Your task to perform on an android device: set default search engine in the chrome app Image 0: 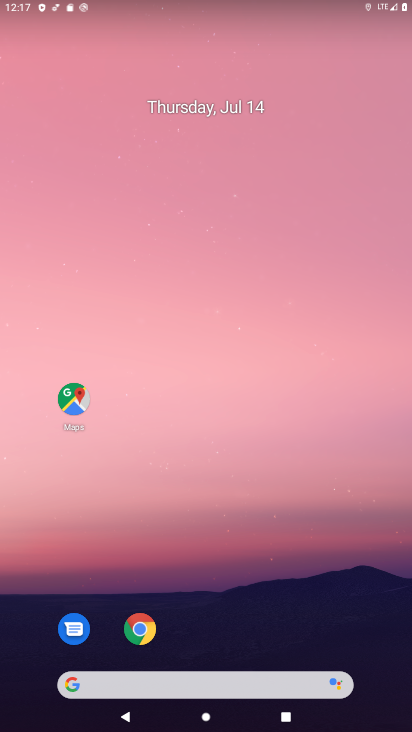
Step 0: drag from (284, 642) to (204, 53)
Your task to perform on an android device: set default search engine in the chrome app Image 1: 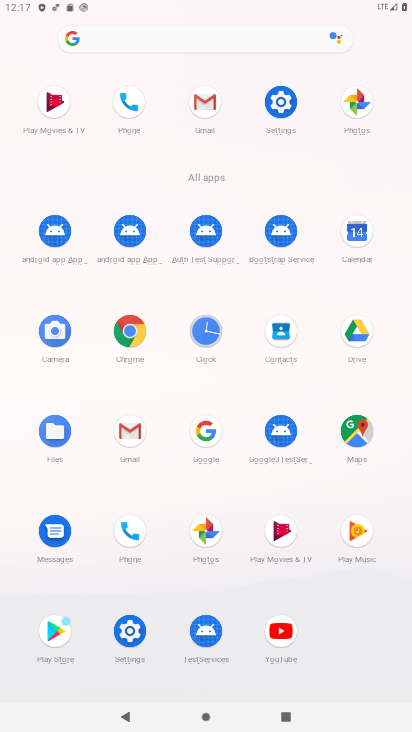
Step 1: click (136, 330)
Your task to perform on an android device: set default search engine in the chrome app Image 2: 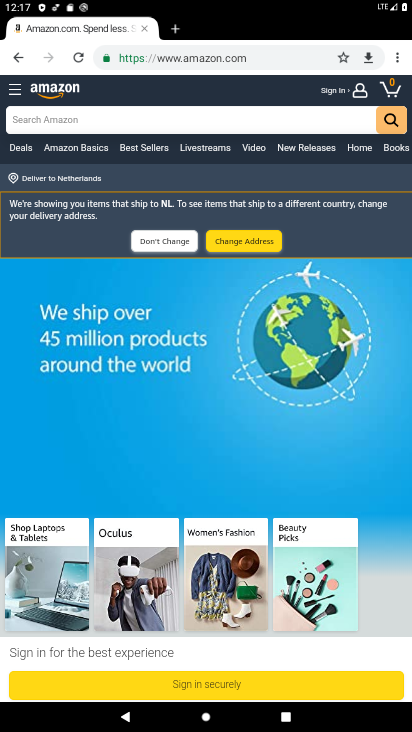
Step 2: drag from (401, 58) to (316, 374)
Your task to perform on an android device: set default search engine in the chrome app Image 3: 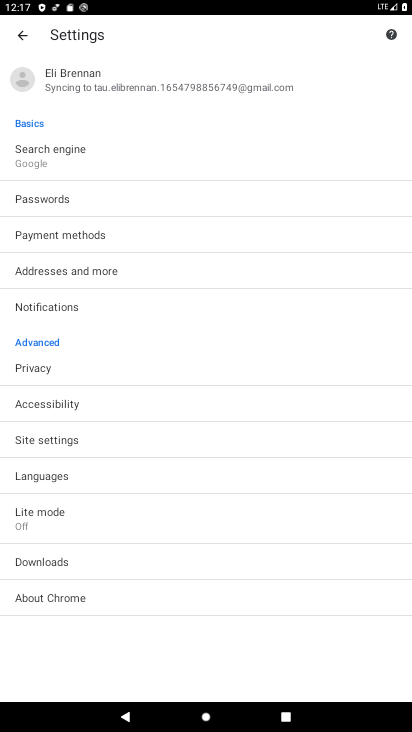
Step 3: click (89, 154)
Your task to perform on an android device: set default search engine in the chrome app Image 4: 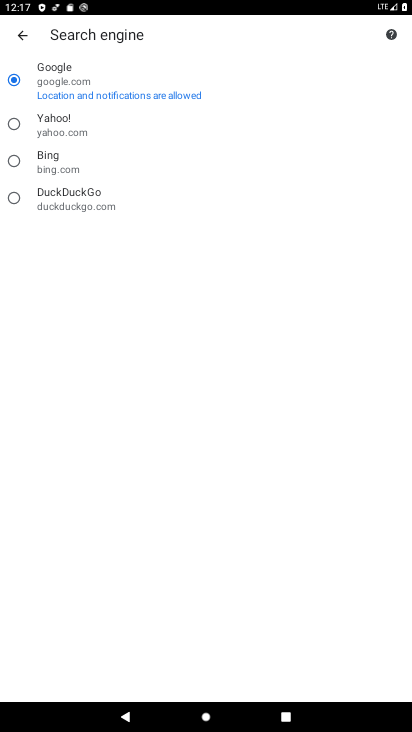
Step 4: task complete